Your task to perform on an android device: Search for Mexican restaurants on Maps Image 0: 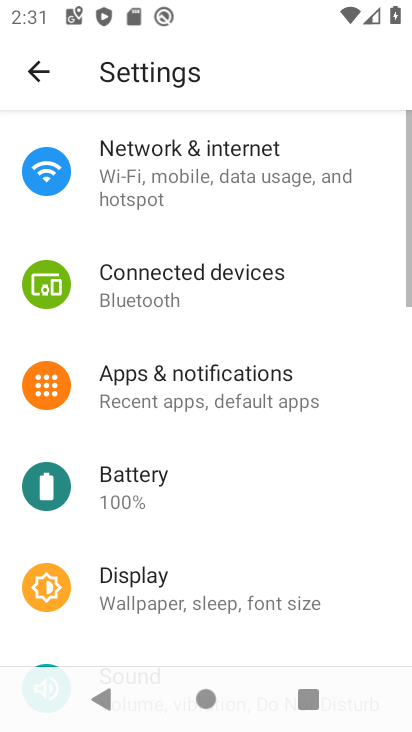
Step 0: press home button
Your task to perform on an android device: Search for Mexican restaurants on Maps Image 1: 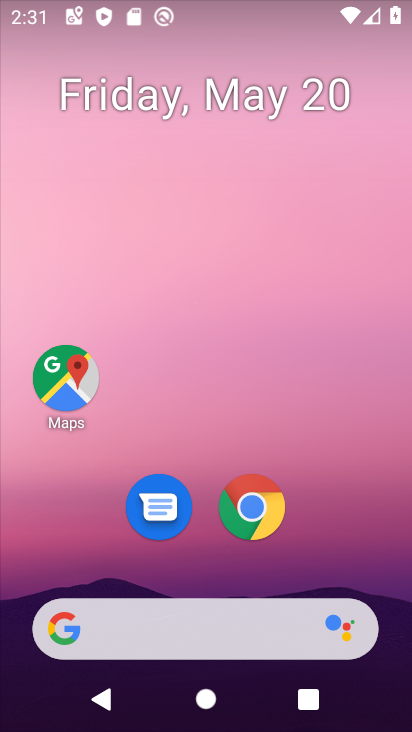
Step 1: drag from (234, 725) to (264, 0)
Your task to perform on an android device: Search for Mexican restaurants on Maps Image 2: 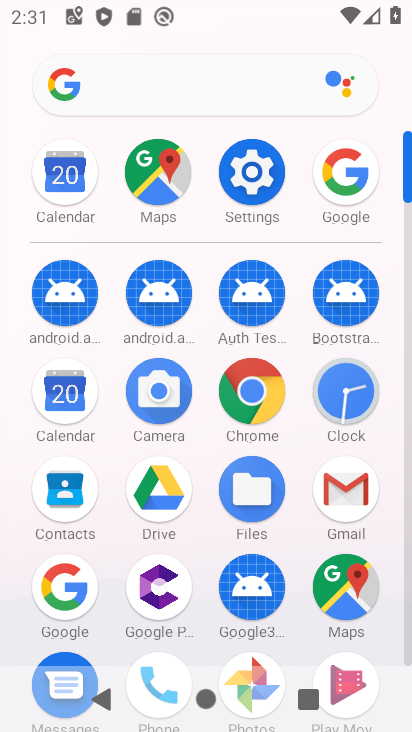
Step 2: click (352, 581)
Your task to perform on an android device: Search for Mexican restaurants on Maps Image 3: 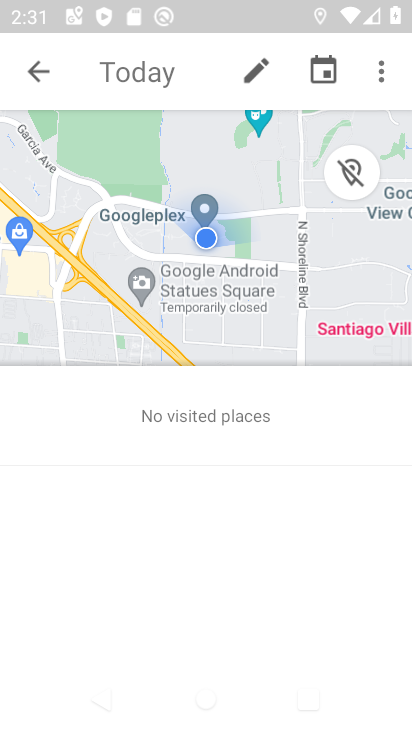
Step 3: click (40, 61)
Your task to perform on an android device: Search for Mexican restaurants on Maps Image 4: 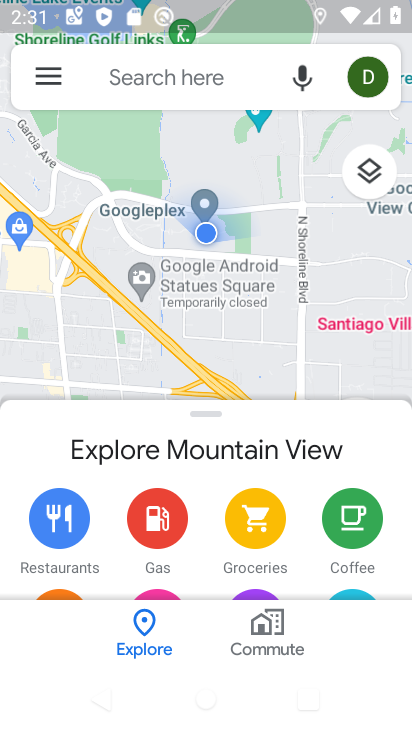
Step 4: click (195, 80)
Your task to perform on an android device: Search for Mexican restaurants on Maps Image 5: 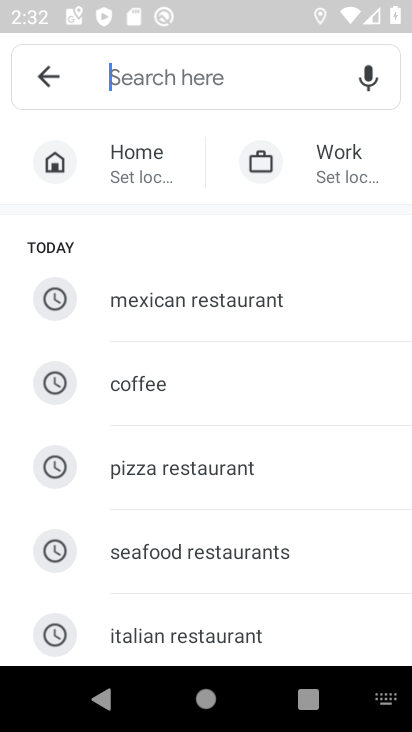
Step 5: type "Mexican restaurants"
Your task to perform on an android device: Search for Mexican restaurants on Maps Image 6: 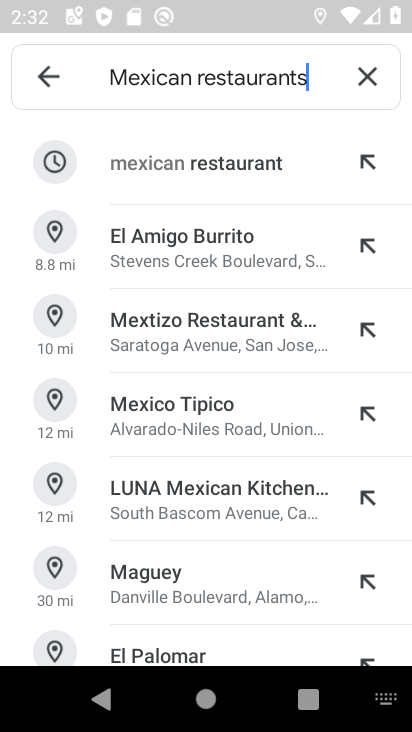
Step 6: click (188, 169)
Your task to perform on an android device: Search for Mexican restaurants on Maps Image 7: 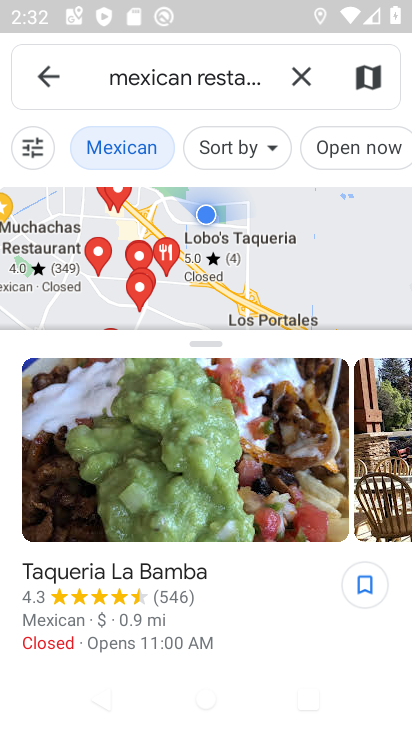
Step 7: task complete